Your task to perform on an android device: toggle translation in the chrome app Image 0: 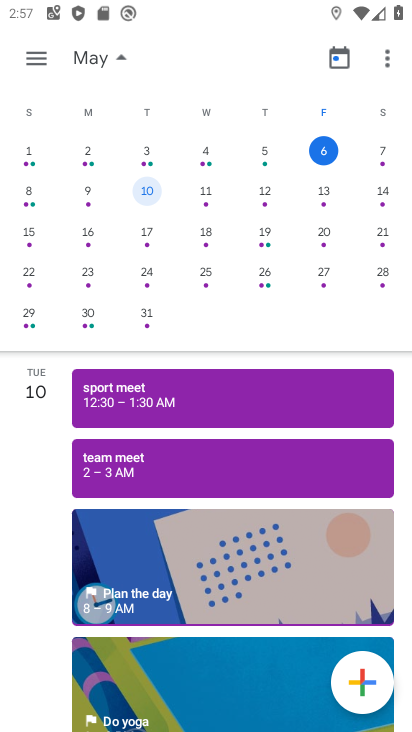
Step 0: press home button
Your task to perform on an android device: toggle translation in the chrome app Image 1: 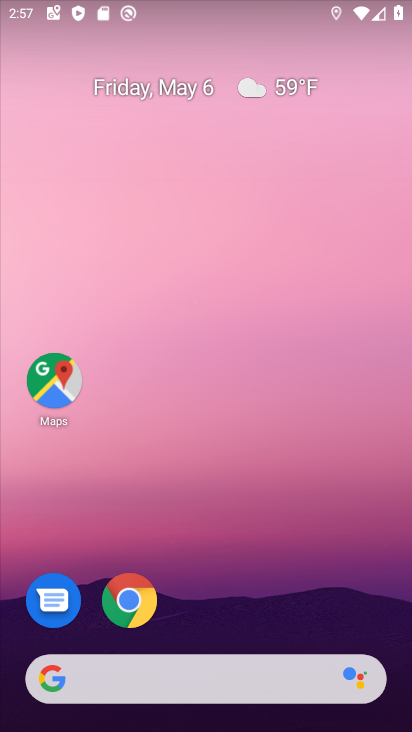
Step 1: click (128, 603)
Your task to perform on an android device: toggle translation in the chrome app Image 2: 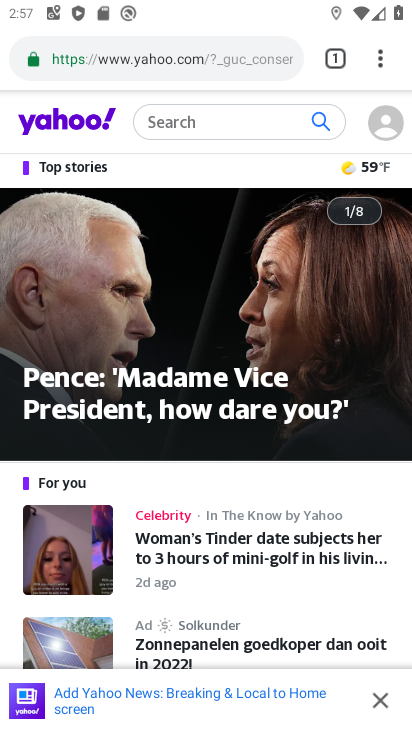
Step 2: click (377, 57)
Your task to perform on an android device: toggle translation in the chrome app Image 3: 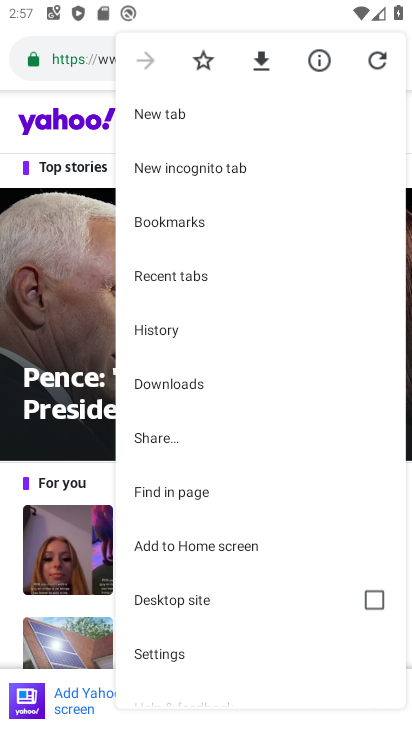
Step 3: drag from (184, 643) to (259, 238)
Your task to perform on an android device: toggle translation in the chrome app Image 4: 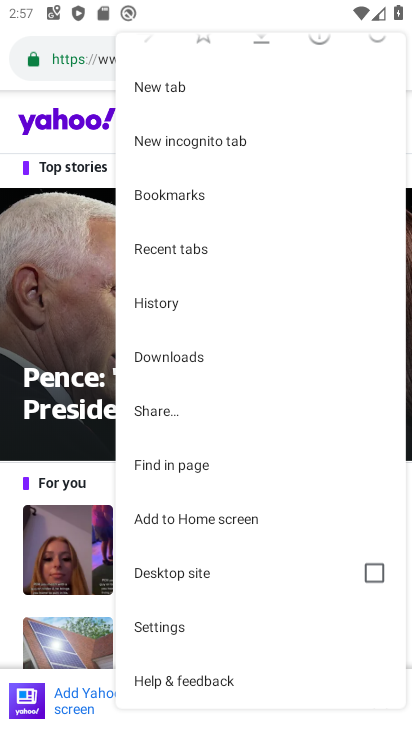
Step 4: click (180, 627)
Your task to perform on an android device: toggle translation in the chrome app Image 5: 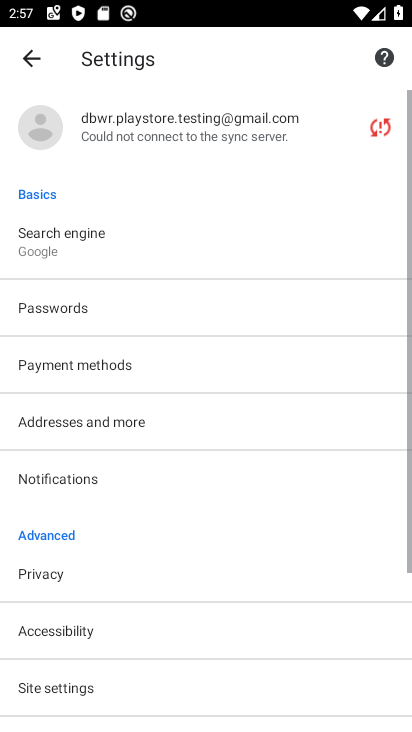
Step 5: drag from (219, 600) to (234, 128)
Your task to perform on an android device: toggle translation in the chrome app Image 6: 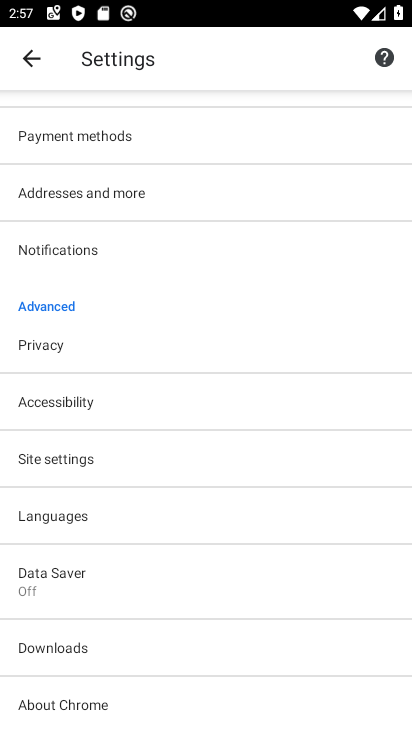
Step 6: click (109, 516)
Your task to perform on an android device: toggle translation in the chrome app Image 7: 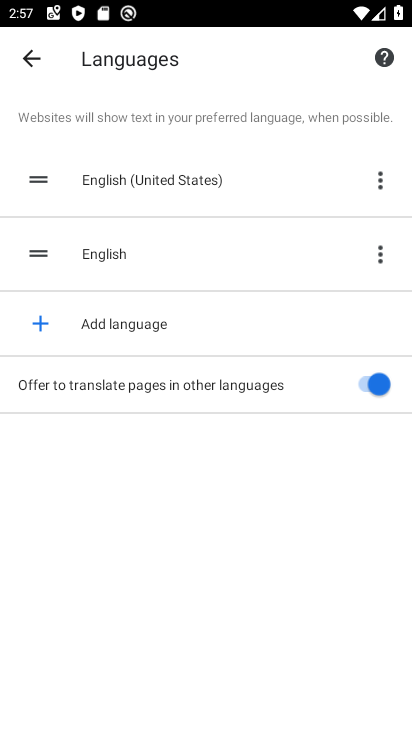
Step 7: click (369, 383)
Your task to perform on an android device: toggle translation in the chrome app Image 8: 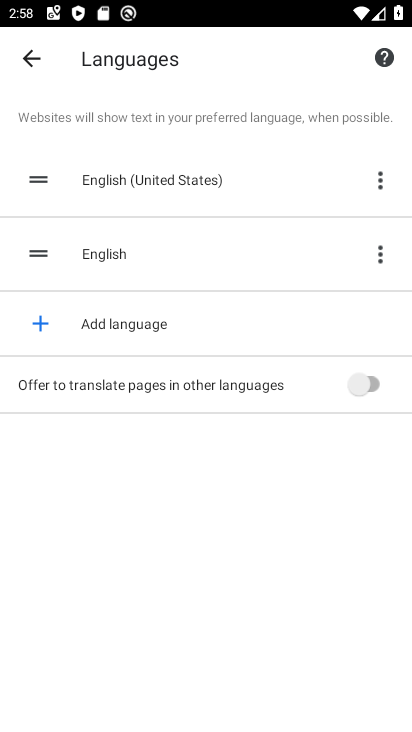
Step 8: task complete